Your task to perform on an android device: What's on my calendar tomorrow? Image 0: 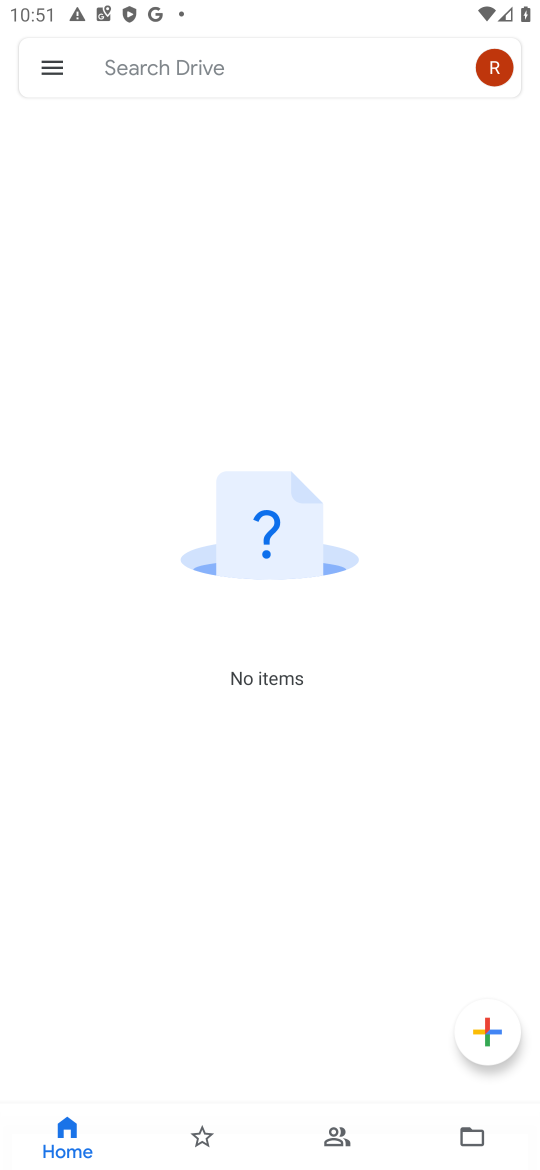
Step 0: press home button
Your task to perform on an android device: What's on my calendar tomorrow? Image 1: 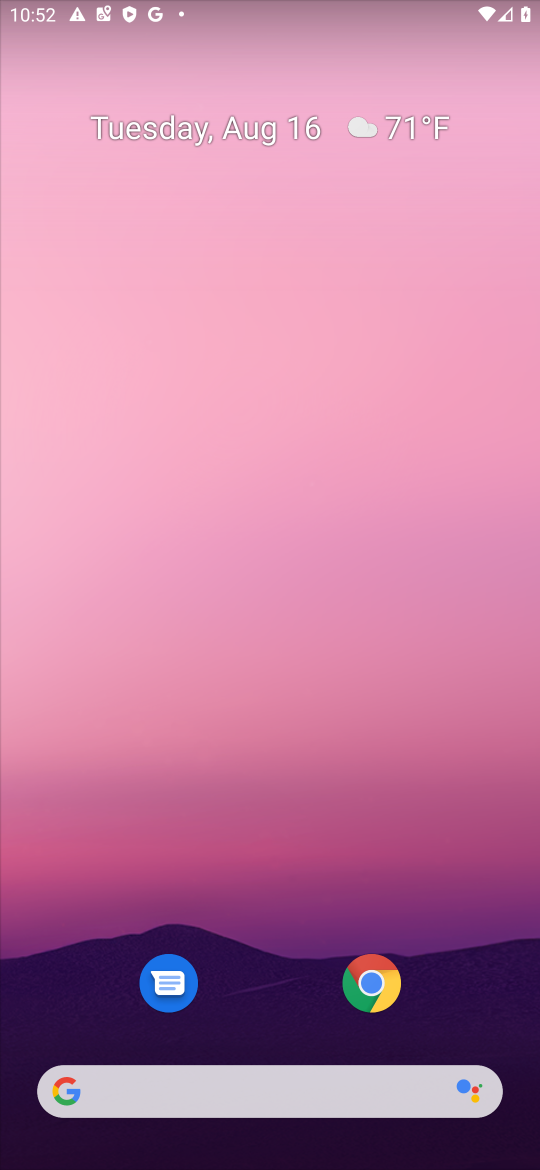
Step 1: drag from (272, 1082) to (218, 13)
Your task to perform on an android device: What's on my calendar tomorrow? Image 2: 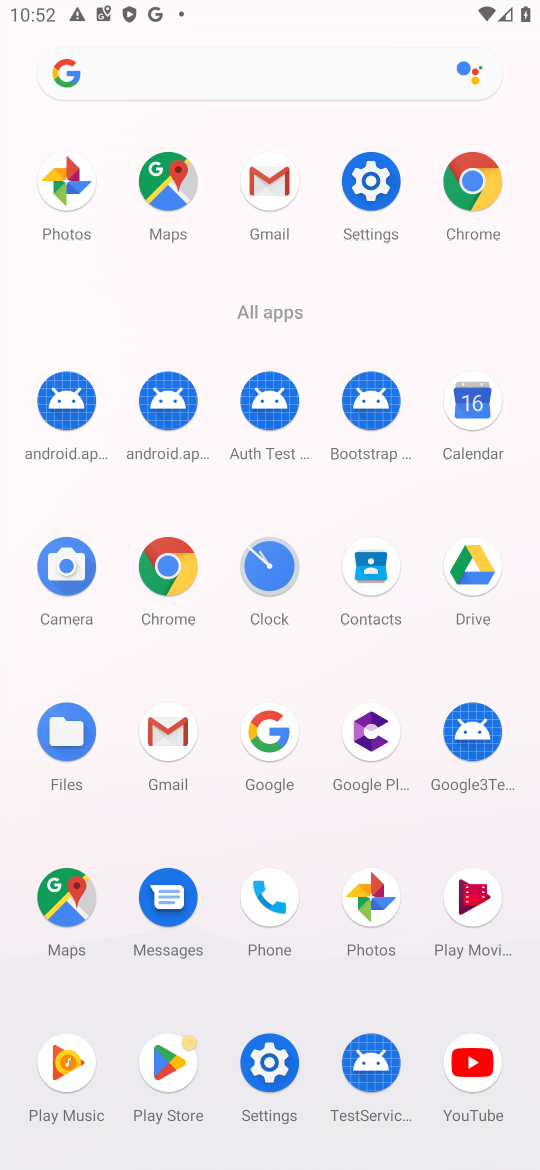
Step 2: click (450, 423)
Your task to perform on an android device: What's on my calendar tomorrow? Image 3: 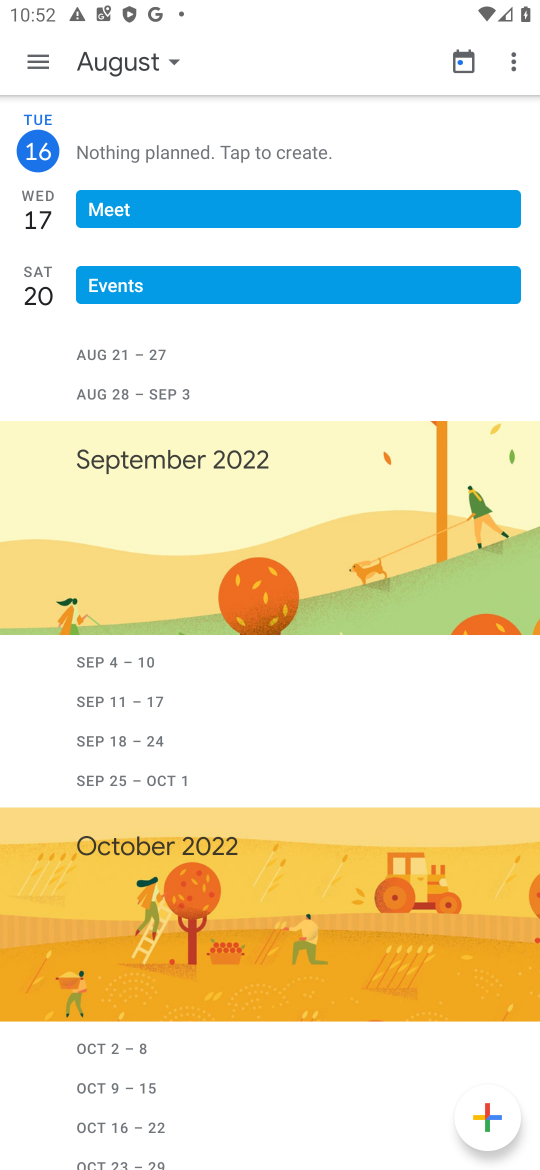
Step 3: click (36, 223)
Your task to perform on an android device: What's on my calendar tomorrow? Image 4: 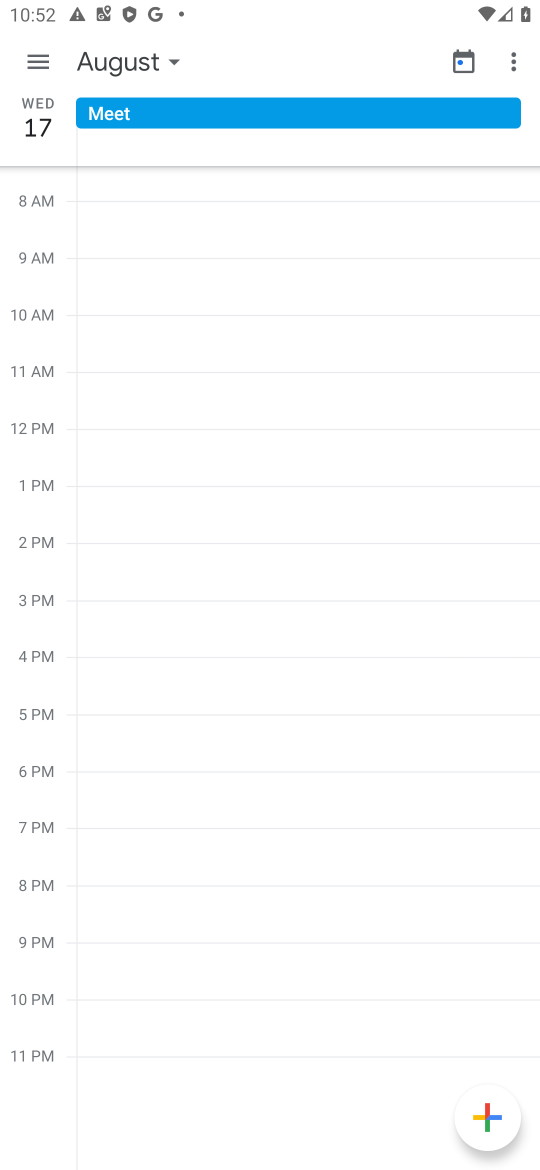
Step 4: task complete